Your task to perform on an android device: Open the calendar app, open the side menu, and click the "Day" option Image 0: 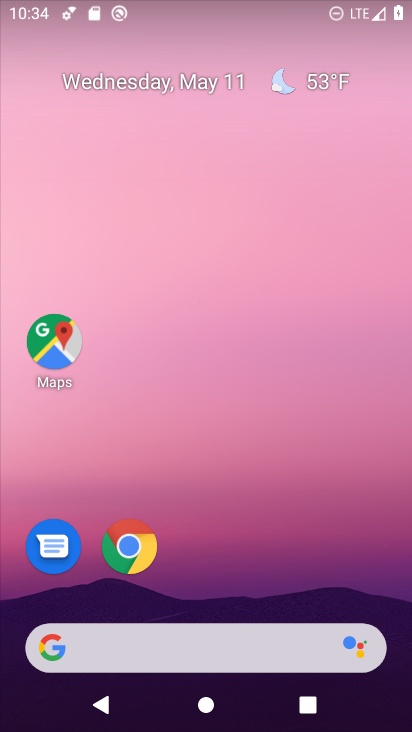
Step 0: drag from (398, 622) to (321, 77)
Your task to perform on an android device: Open the calendar app, open the side menu, and click the "Day" option Image 1: 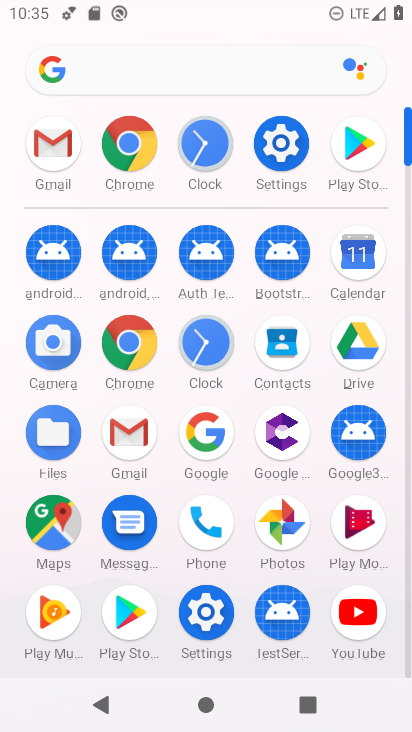
Step 1: click (361, 275)
Your task to perform on an android device: Open the calendar app, open the side menu, and click the "Day" option Image 2: 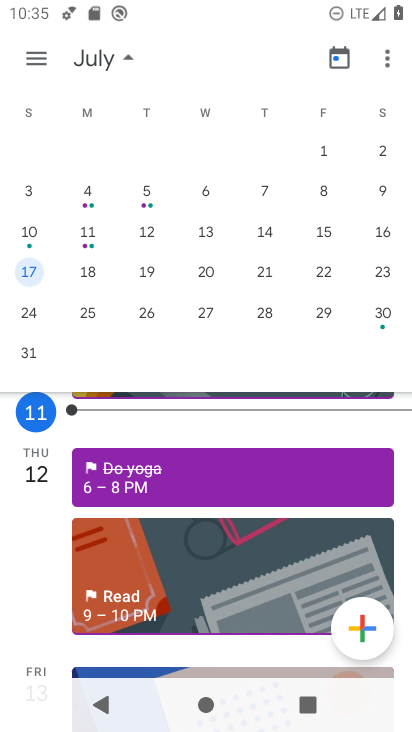
Step 2: click (38, 68)
Your task to perform on an android device: Open the calendar app, open the side menu, and click the "Day" option Image 3: 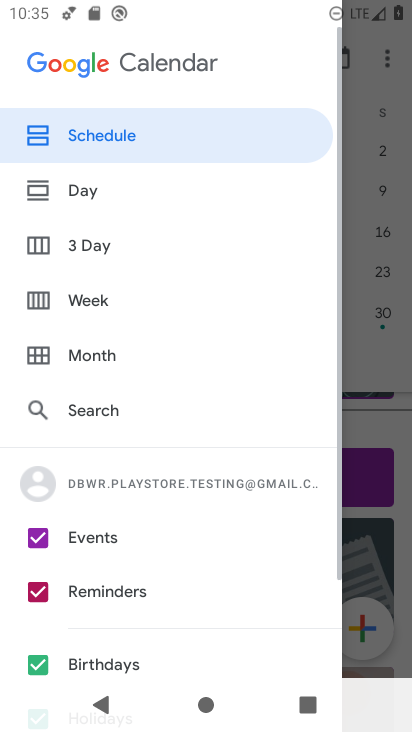
Step 3: click (124, 184)
Your task to perform on an android device: Open the calendar app, open the side menu, and click the "Day" option Image 4: 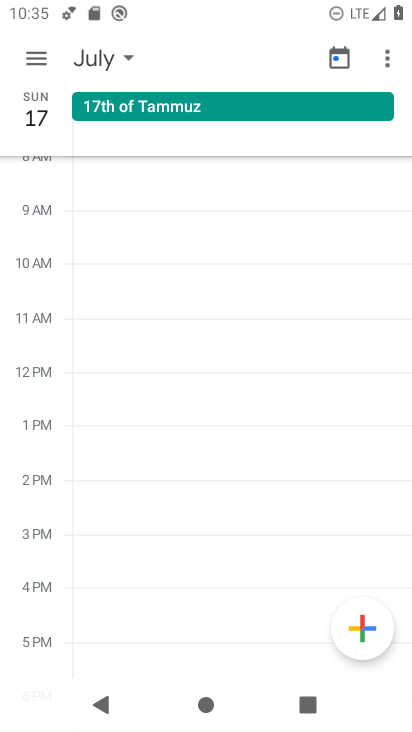
Step 4: task complete